Your task to perform on an android device: Show me popular games on the Play Store Image 0: 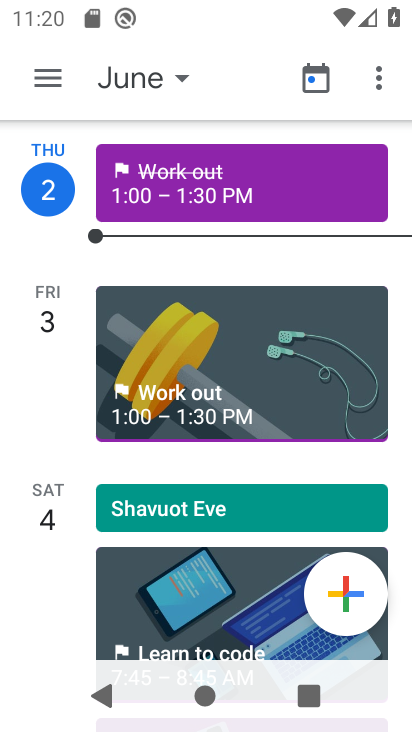
Step 0: press back button
Your task to perform on an android device: Show me popular games on the Play Store Image 1: 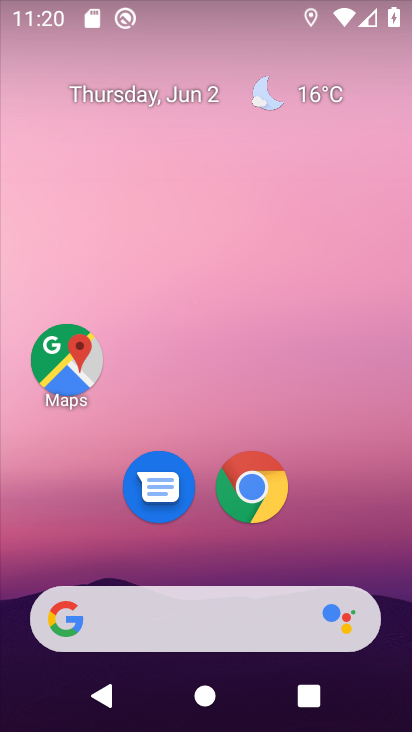
Step 1: drag from (338, 541) to (268, 47)
Your task to perform on an android device: Show me popular games on the Play Store Image 2: 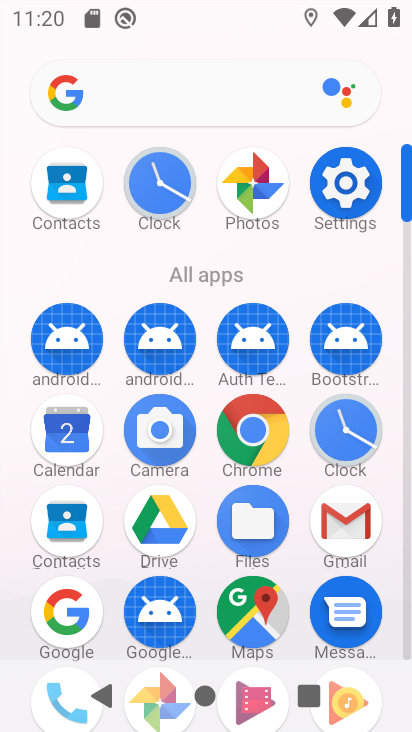
Step 2: drag from (315, 281) to (308, 80)
Your task to perform on an android device: Show me popular games on the Play Store Image 3: 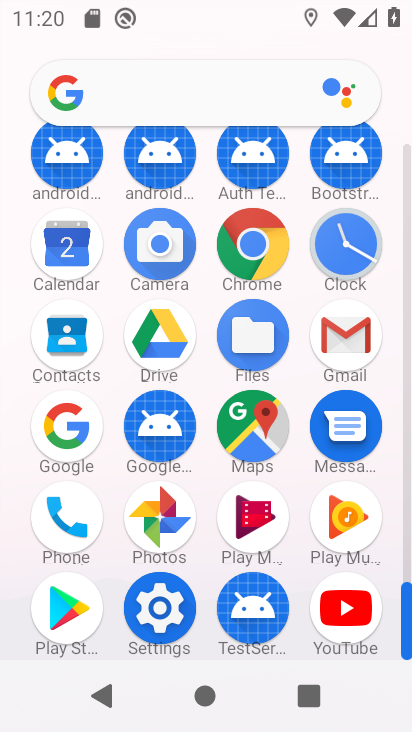
Step 3: click (66, 606)
Your task to perform on an android device: Show me popular games on the Play Store Image 4: 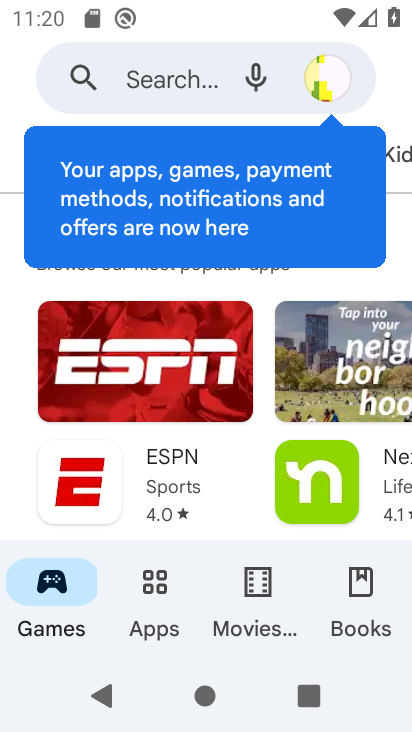
Step 4: click (157, 68)
Your task to perform on an android device: Show me popular games on the Play Store Image 5: 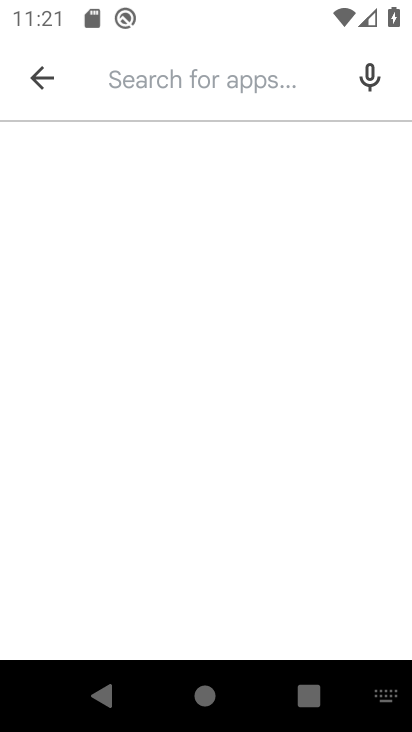
Step 5: type "popular games"
Your task to perform on an android device: Show me popular games on the Play Store Image 6: 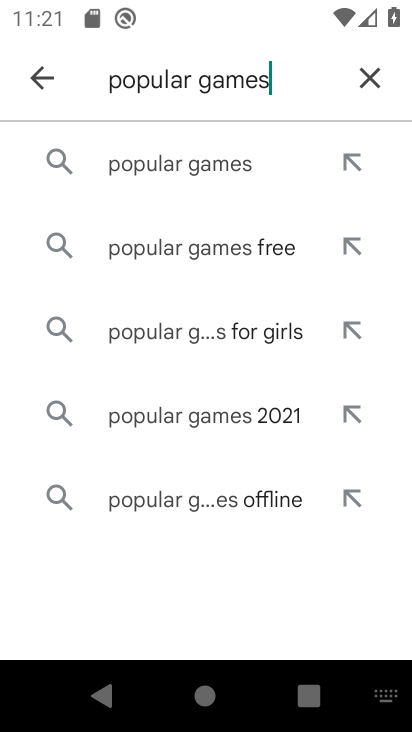
Step 6: click (202, 169)
Your task to perform on an android device: Show me popular games on the Play Store Image 7: 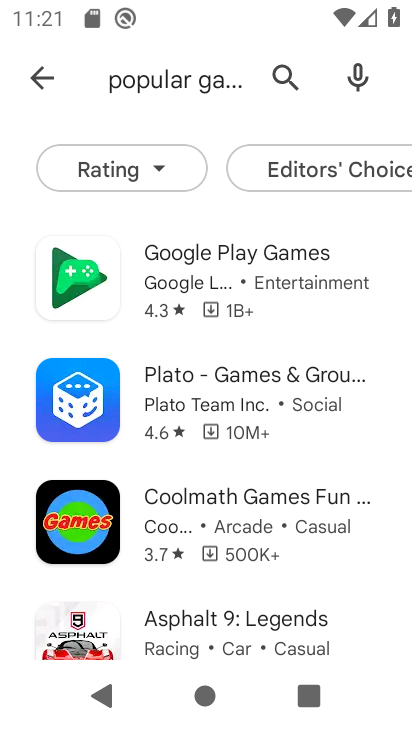
Step 7: task complete